Your task to perform on an android device: What's the weather today? Image 0: 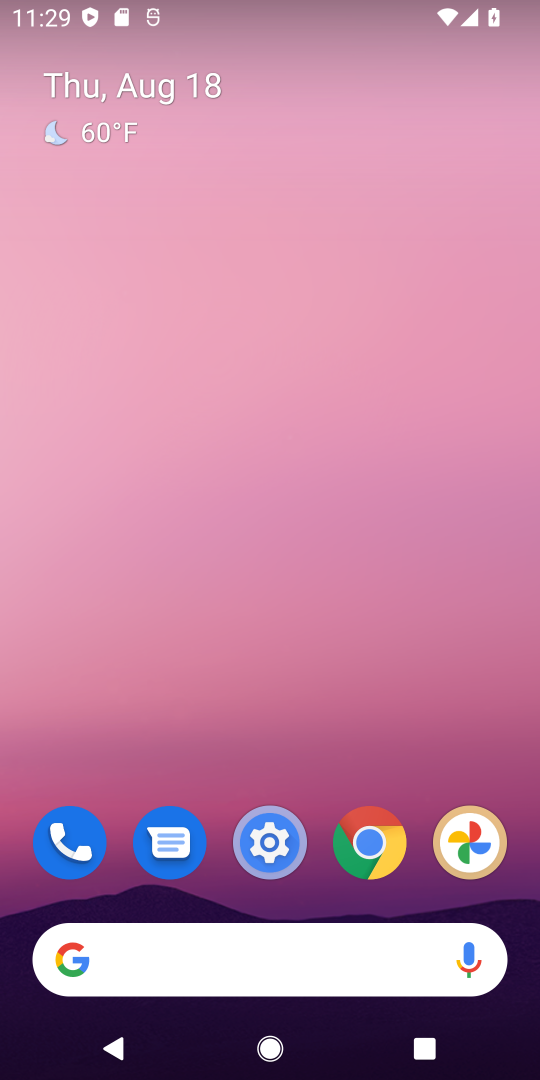
Step 0: click (119, 137)
Your task to perform on an android device: What's the weather today? Image 1: 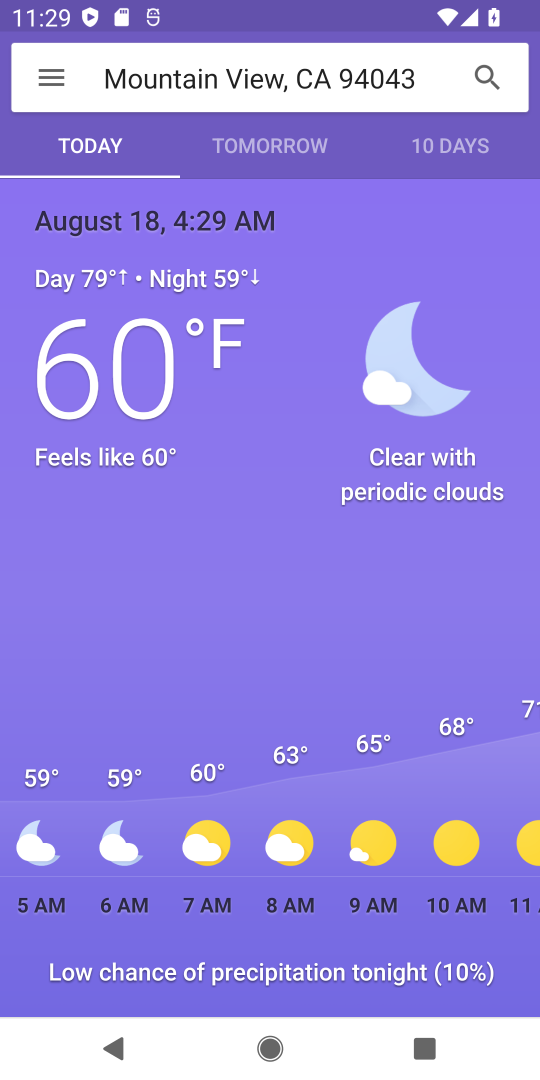
Step 1: task complete